Your task to perform on an android device: change alarm snooze length Image 0: 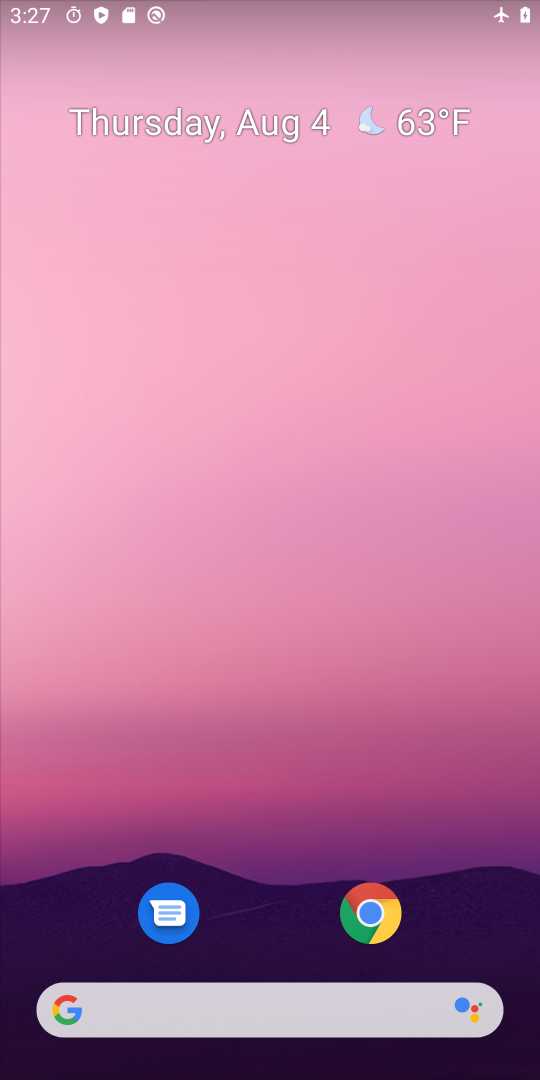
Step 0: drag from (327, 1002) to (445, 122)
Your task to perform on an android device: change alarm snooze length Image 1: 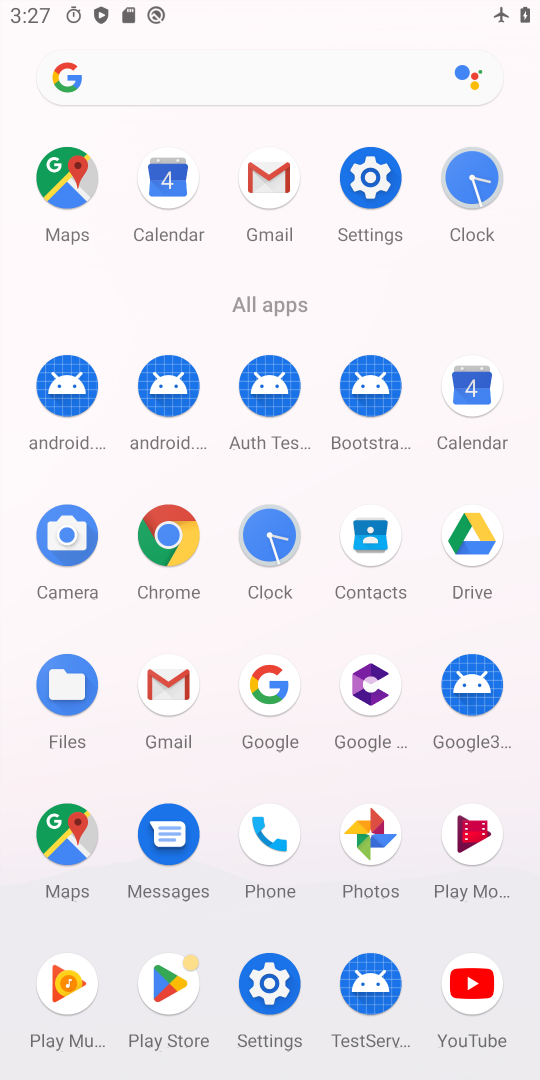
Step 1: click (271, 536)
Your task to perform on an android device: change alarm snooze length Image 2: 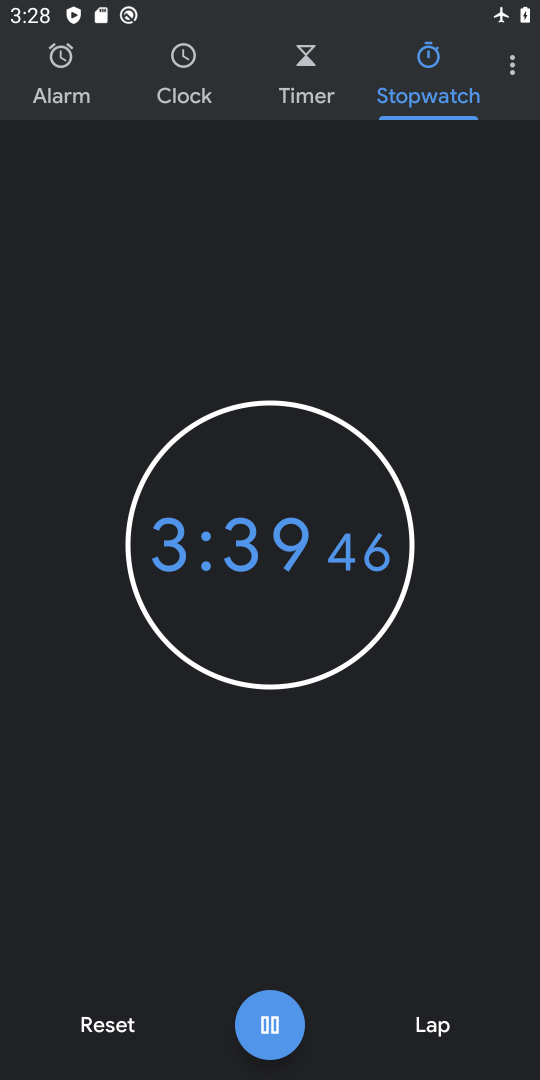
Step 2: click (505, 47)
Your task to perform on an android device: change alarm snooze length Image 3: 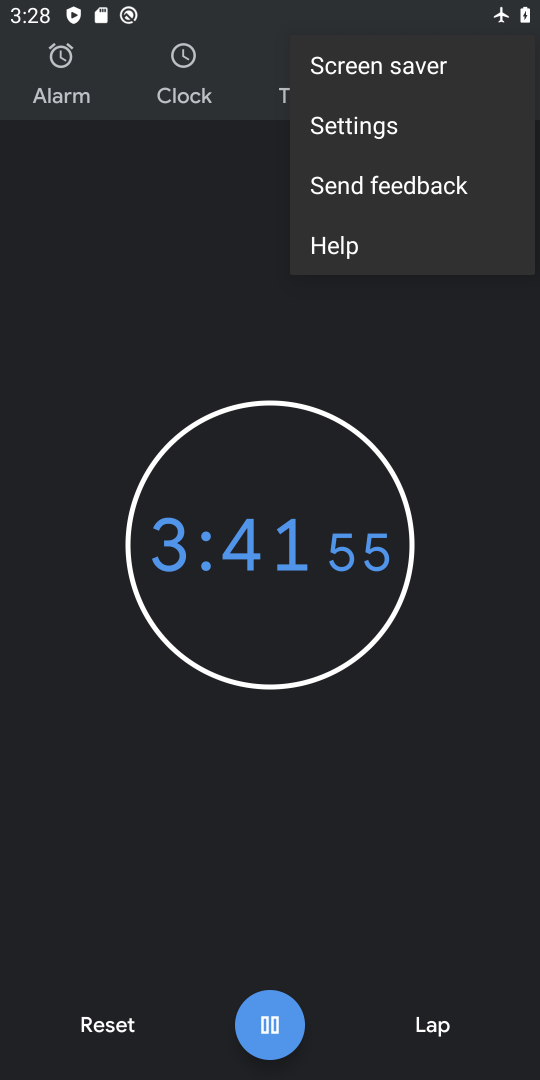
Step 3: click (353, 133)
Your task to perform on an android device: change alarm snooze length Image 4: 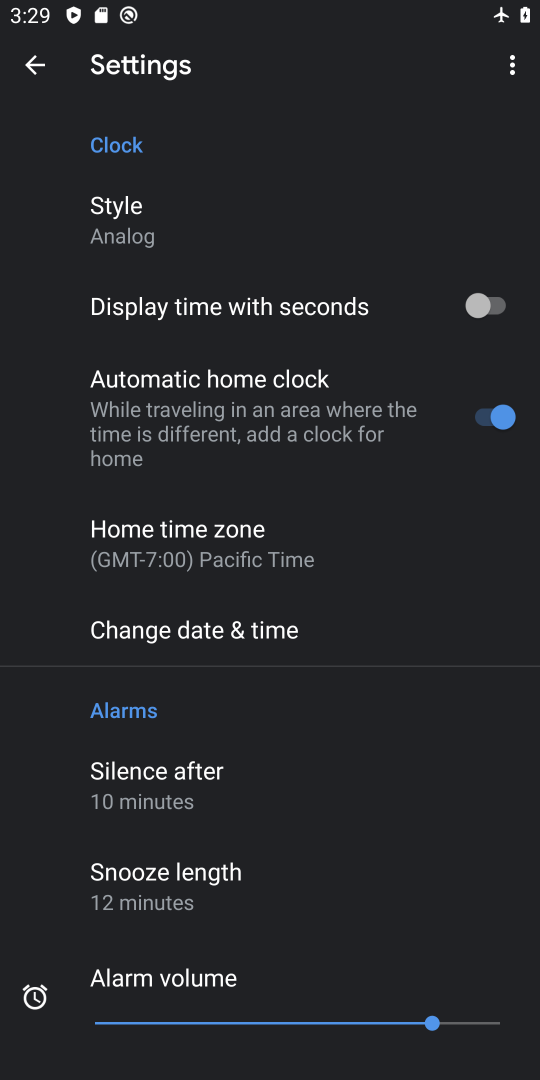
Step 4: click (219, 882)
Your task to perform on an android device: change alarm snooze length Image 5: 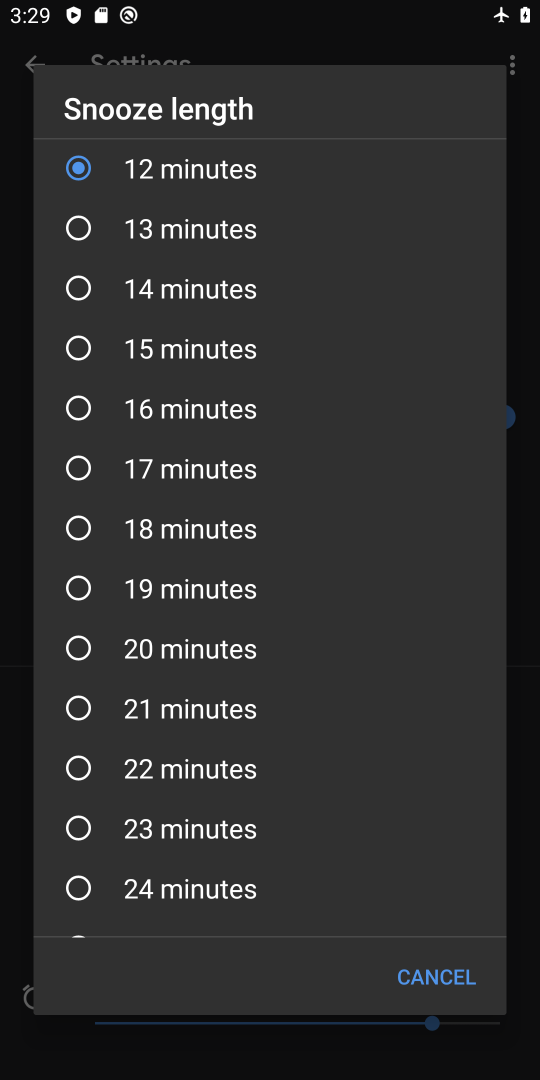
Step 5: click (88, 288)
Your task to perform on an android device: change alarm snooze length Image 6: 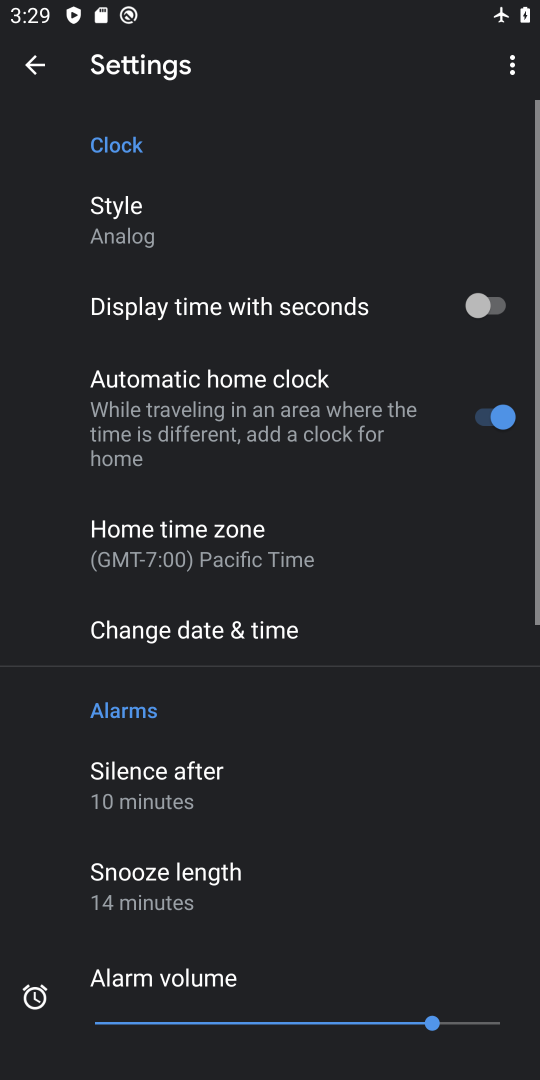
Step 6: task complete